Your task to perform on an android device: Open Google Chrome and click the shortcut for Amazon.com Image 0: 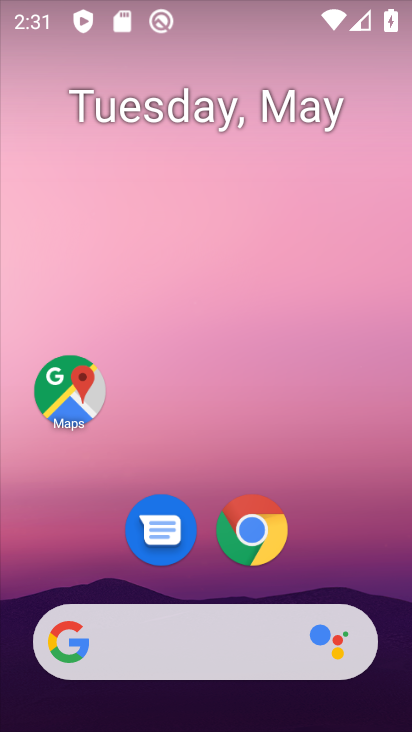
Step 0: click (252, 526)
Your task to perform on an android device: Open Google Chrome and click the shortcut for Amazon.com Image 1: 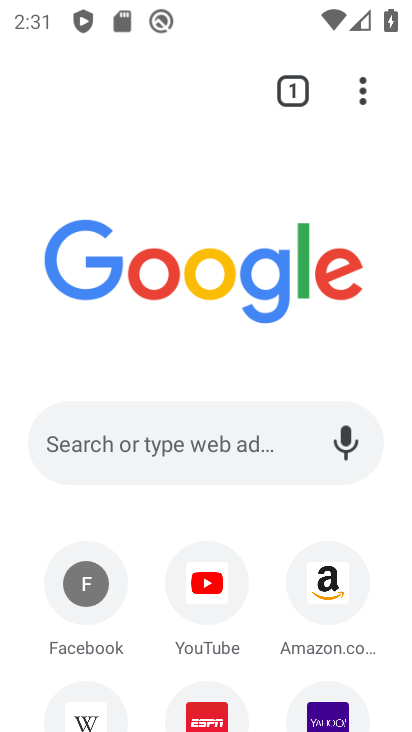
Step 1: click (359, 570)
Your task to perform on an android device: Open Google Chrome and click the shortcut for Amazon.com Image 2: 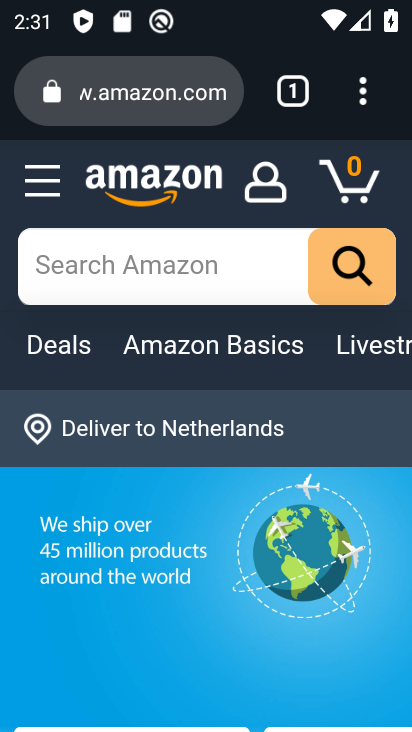
Step 2: task complete